Your task to perform on an android device: move a message to another label in the gmail app Image 0: 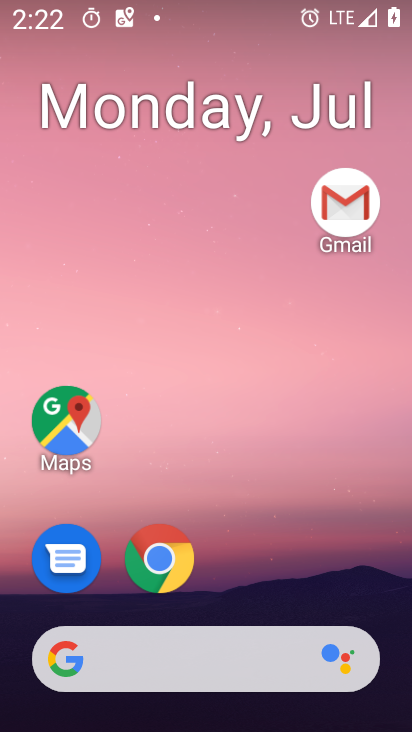
Step 0: drag from (337, 564) to (314, 146)
Your task to perform on an android device: move a message to another label in the gmail app Image 1: 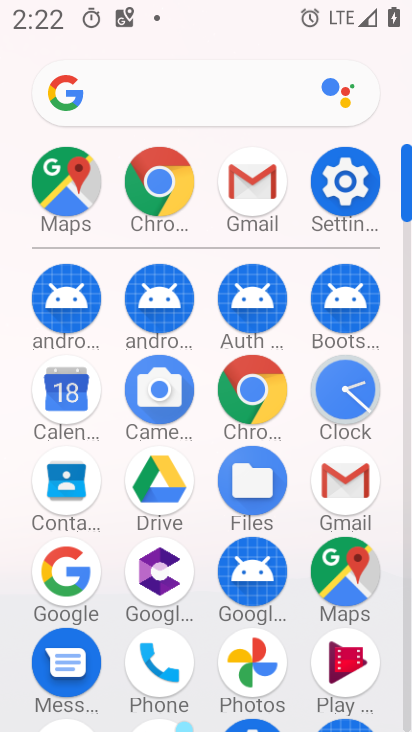
Step 1: click (361, 472)
Your task to perform on an android device: move a message to another label in the gmail app Image 2: 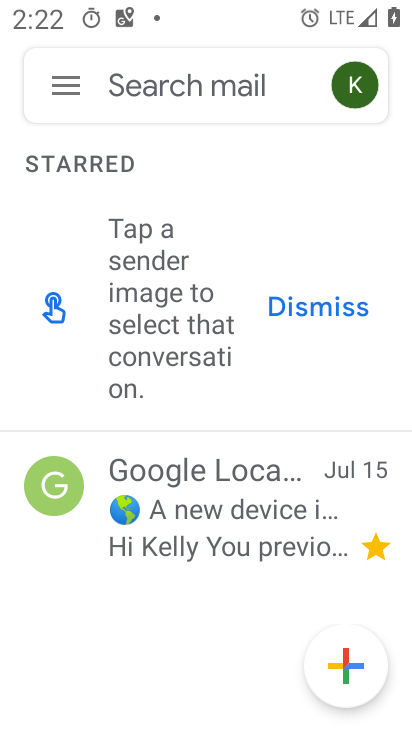
Step 2: click (204, 494)
Your task to perform on an android device: move a message to another label in the gmail app Image 3: 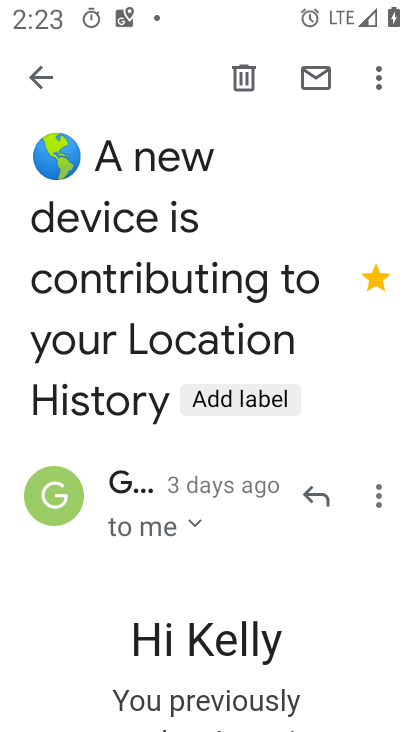
Step 3: click (252, 394)
Your task to perform on an android device: move a message to another label in the gmail app Image 4: 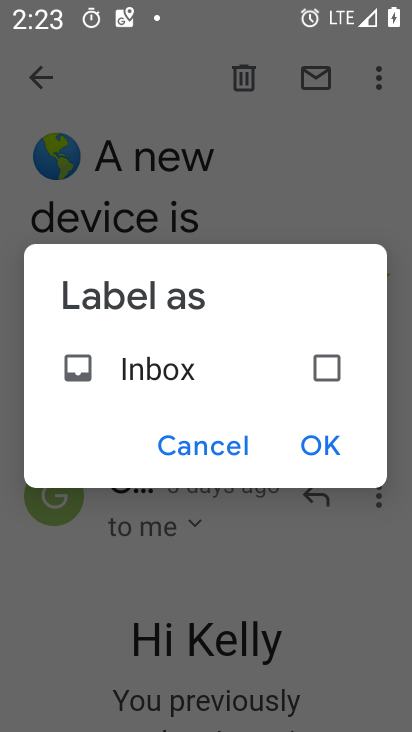
Step 4: click (313, 370)
Your task to perform on an android device: move a message to another label in the gmail app Image 5: 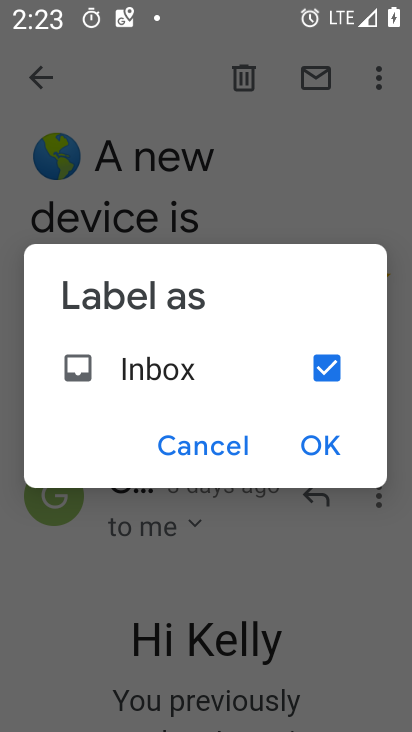
Step 5: click (324, 443)
Your task to perform on an android device: move a message to another label in the gmail app Image 6: 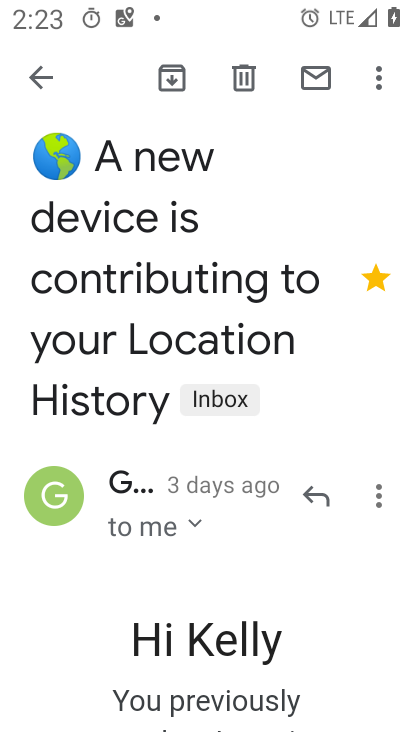
Step 6: task complete